Your task to perform on an android device: Open privacy settings Image 0: 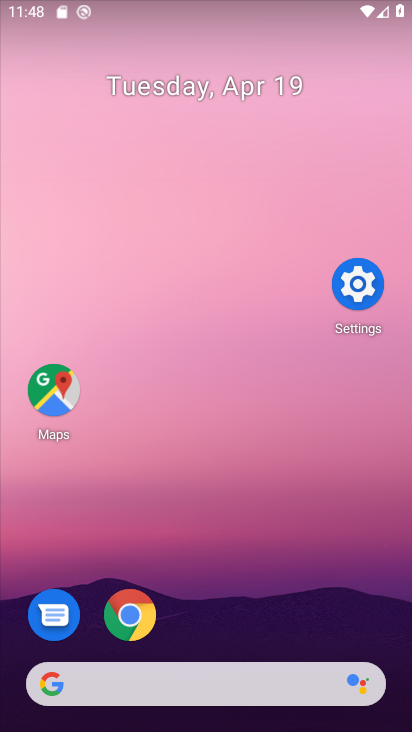
Step 0: drag from (216, 581) to (330, 112)
Your task to perform on an android device: Open privacy settings Image 1: 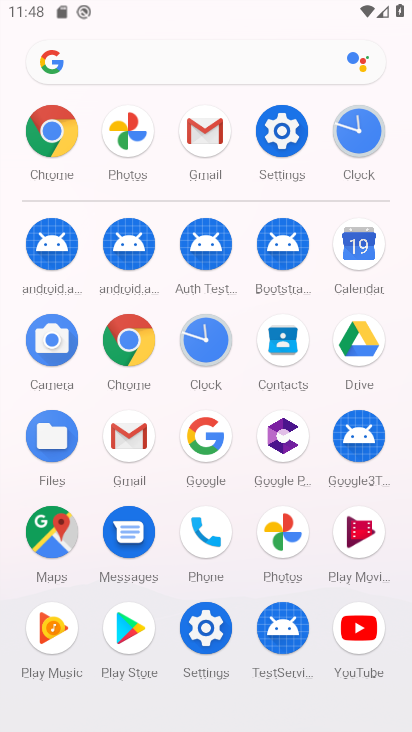
Step 1: click (285, 128)
Your task to perform on an android device: Open privacy settings Image 2: 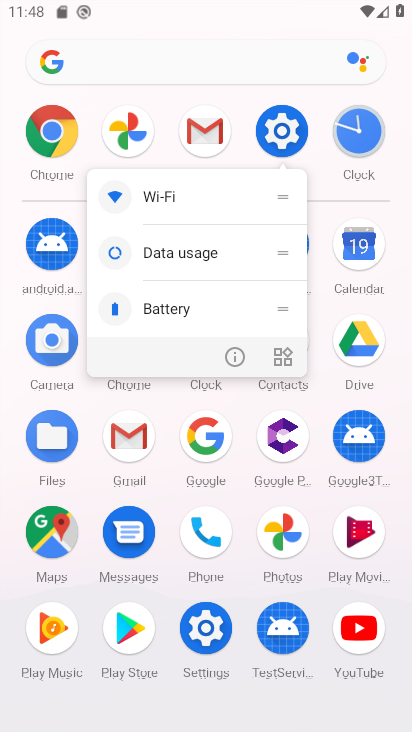
Step 2: click (240, 346)
Your task to perform on an android device: Open privacy settings Image 3: 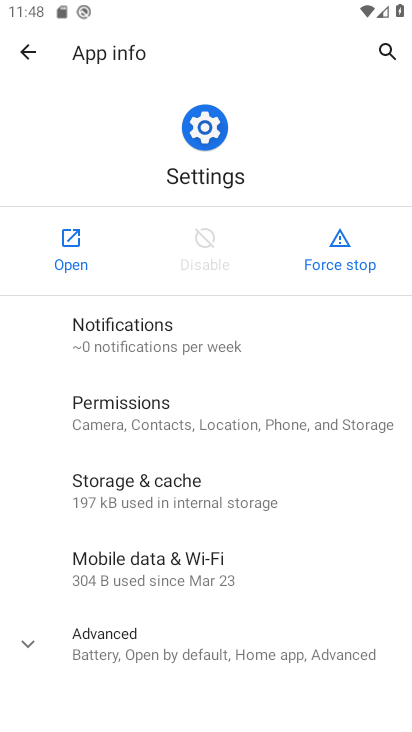
Step 3: click (63, 256)
Your task to perform on an android device: Open privacy settings Image 4: 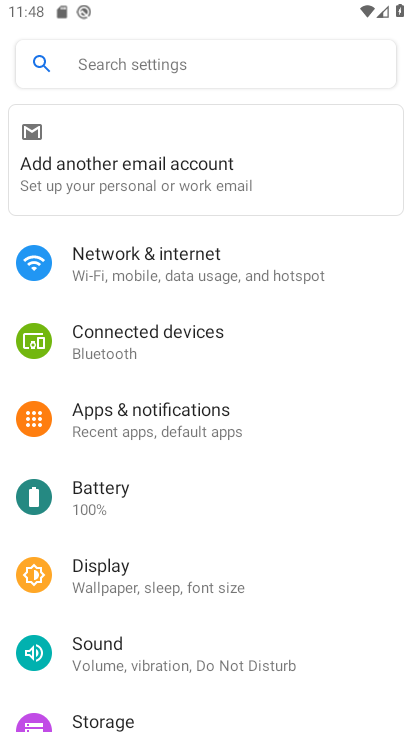
Step 4: drag from (147, 530) to (224, 302)
Your task to perform on an android device: Open privacy settings Image 5: 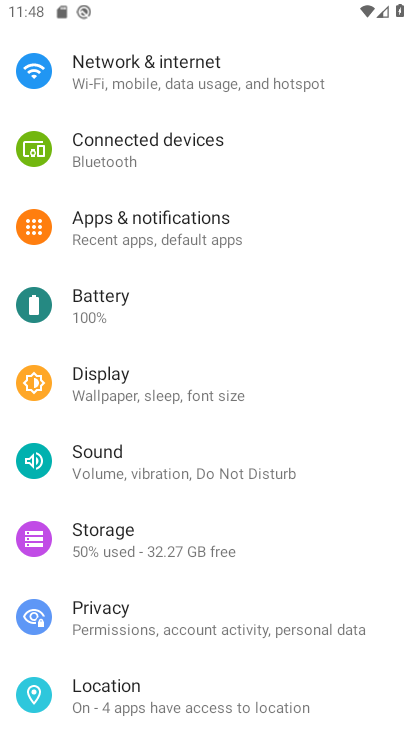
Step 5: click (132, 606)
Your task to perform on an android device: Open privacy settings Image 6: 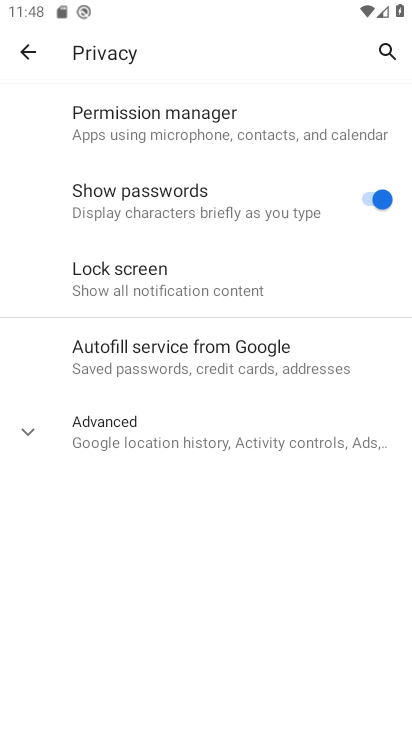
Step 6: task complete